Your task to perform on an android device: Add corsair k70 to the cart on walmart, then select checkout. Image 0: 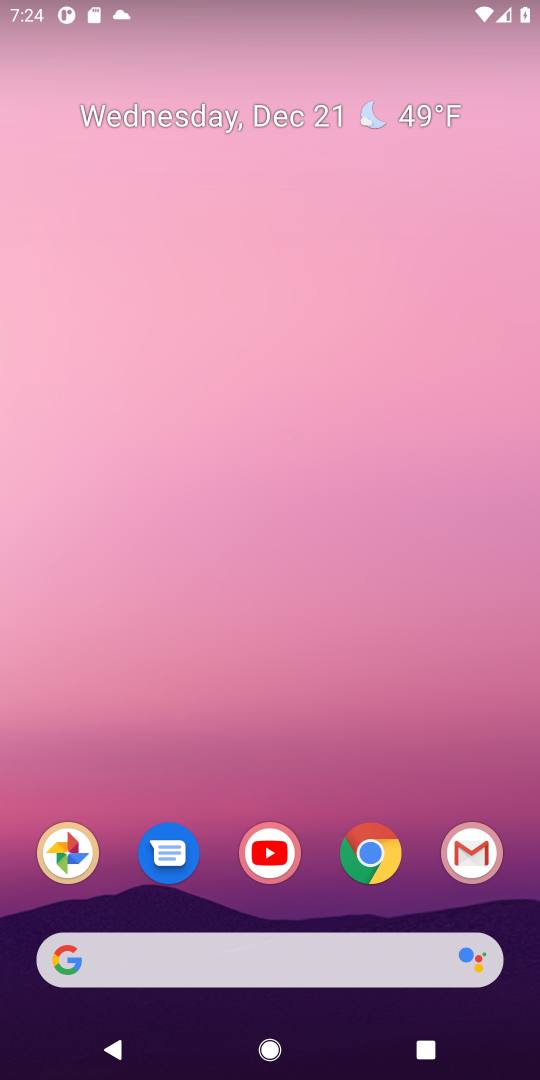
Step 0: click (395, 843)
Your task to perform on an android device: Add corsair k70 to the cart on walmart, then select checkout. Image 1: 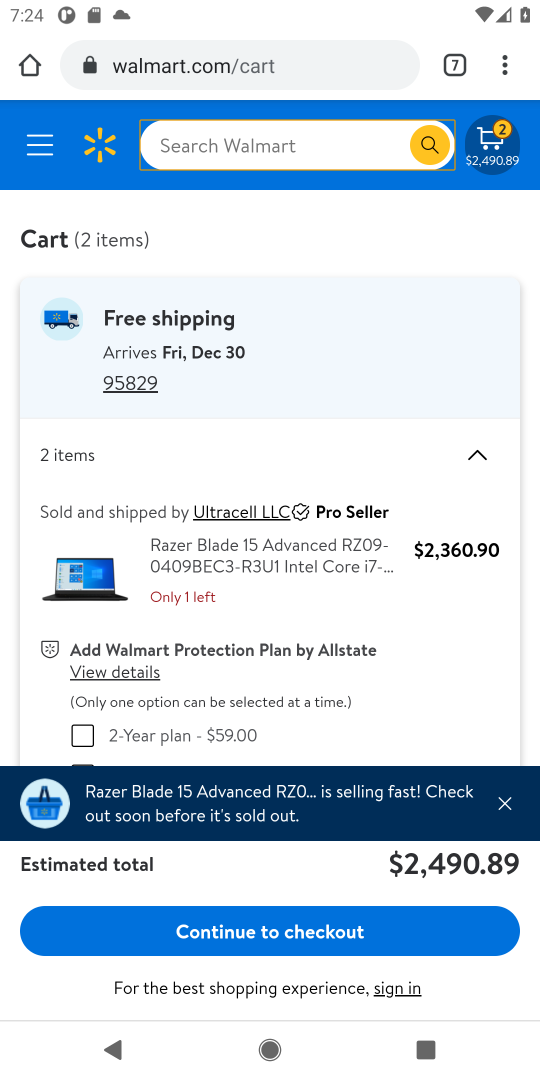
Step 1: type "corsair k70"
Your task to perform on an android device: Add corsair k70 to the cart on walmart, then select checkout. Image 2: 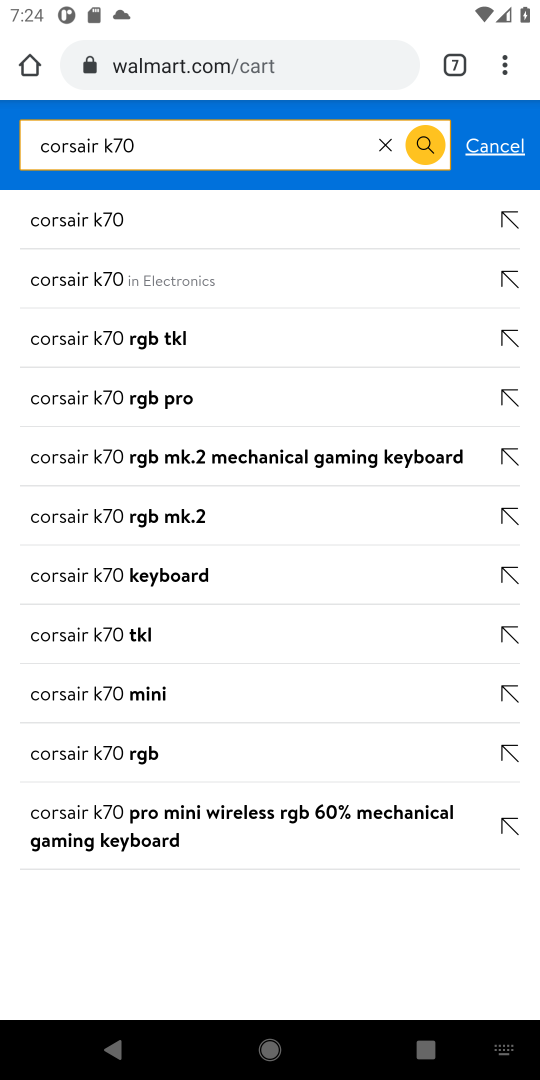
Step 2: click (92, 277)
Your task to perform on an android device: Add corsair k70 to the cart on walmart, then select checkout. Image 3: 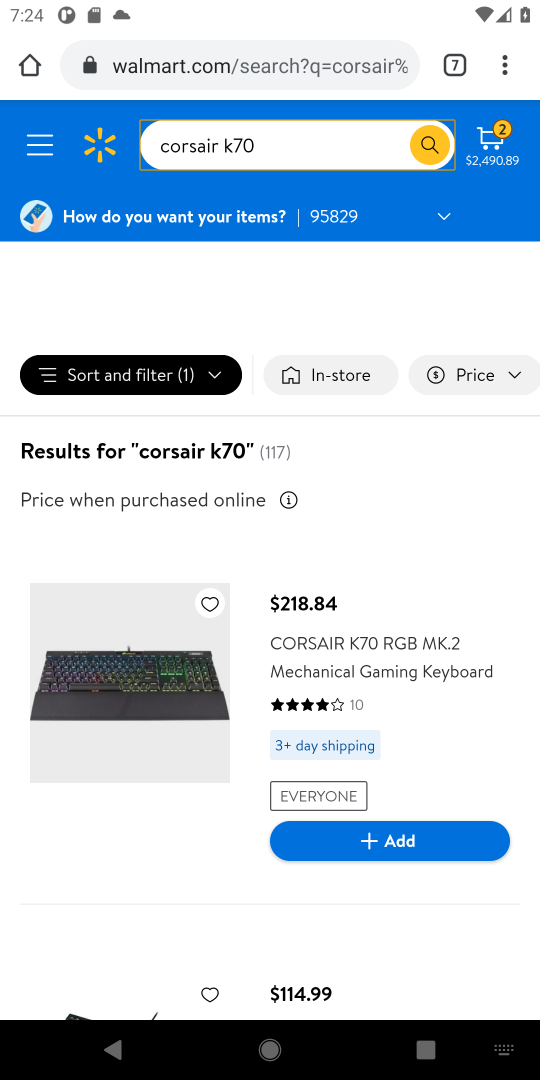
Step 3: click (367, 831)
Your task to perform on an android device: Add corsair k70 to the cart on walmart, then select checkout. Image 4: 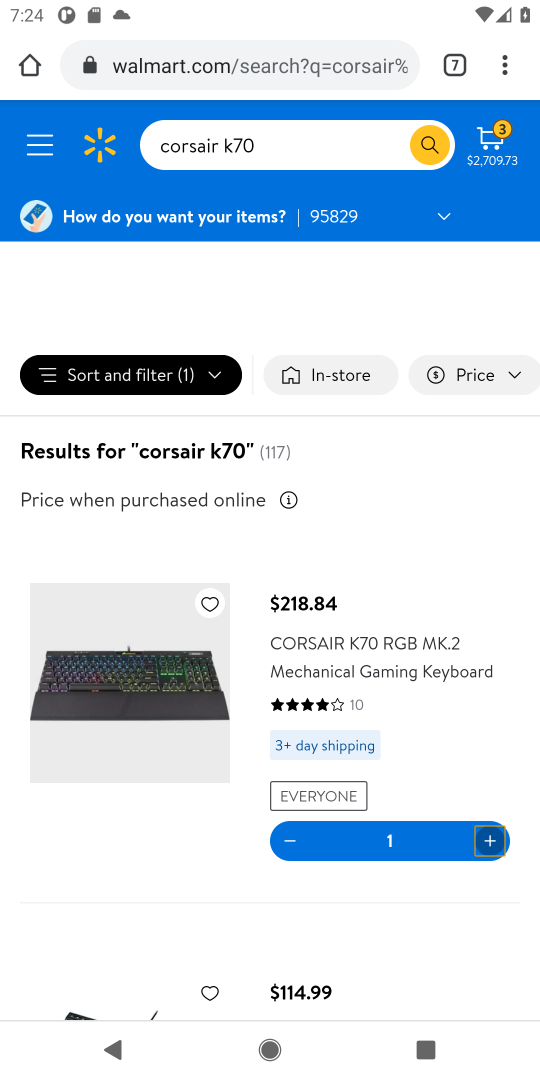
Step 4: task complete